Your task to perform on an android device: Go to Maps Image 0: 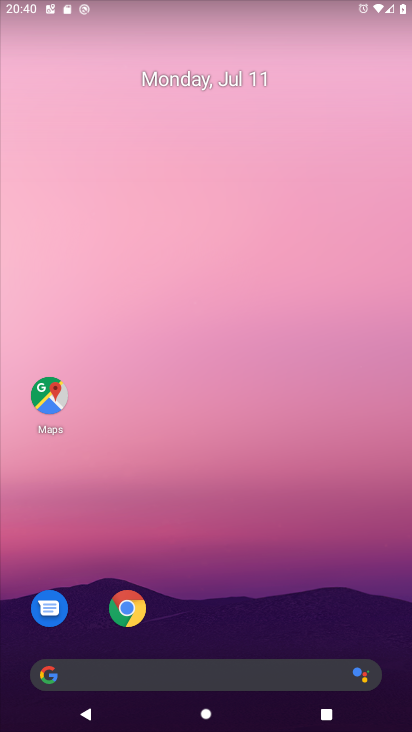
Step 0: click (65, 384)
Your task to perform on an android device: Go to Maps Image 1: 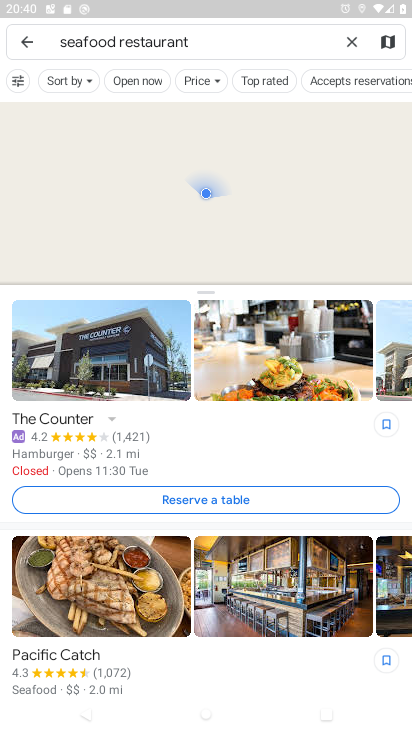
Step 1: task complete